Your task to perform on an android device: What's on my calendar tomorrow? Image 0: 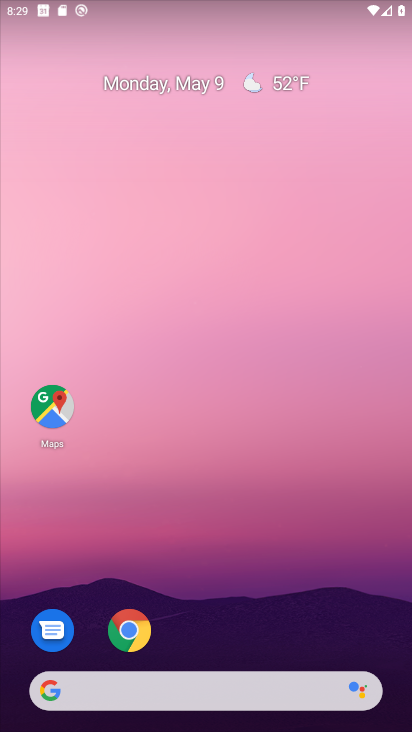
Step 0: click (139, 628)
Your task to perform on an android device: What's on my calendar tomorrow? Image 1: 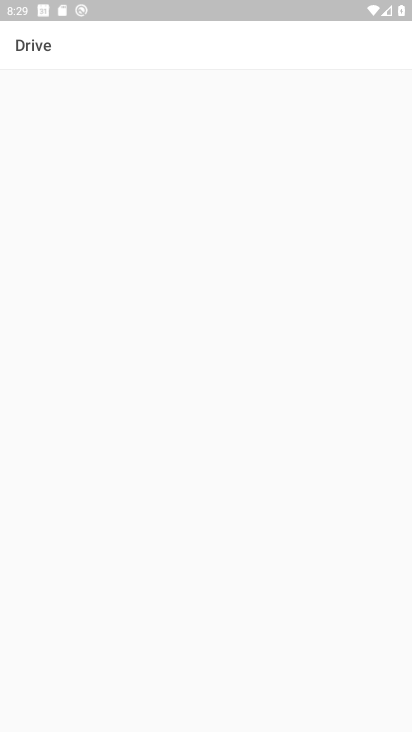
Step 1: press home button
Your task to perform on an android device: What's on my calendar tomorrow? Image 2: 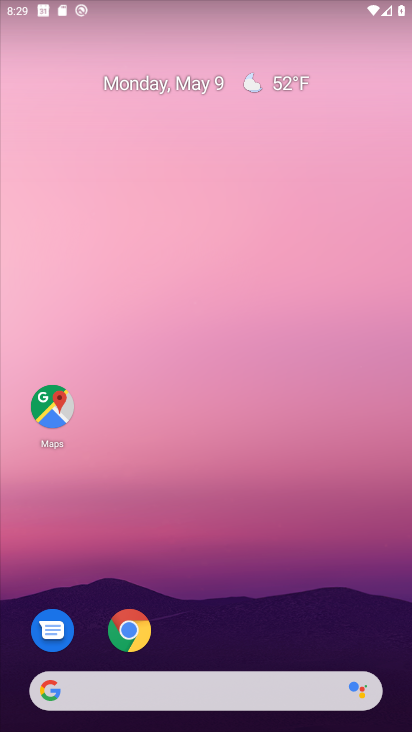
Step 2: drag from (235, 667) to (313, 15)
Your task to perform on an android device: What's on my calendar tomorrow? Image 3: 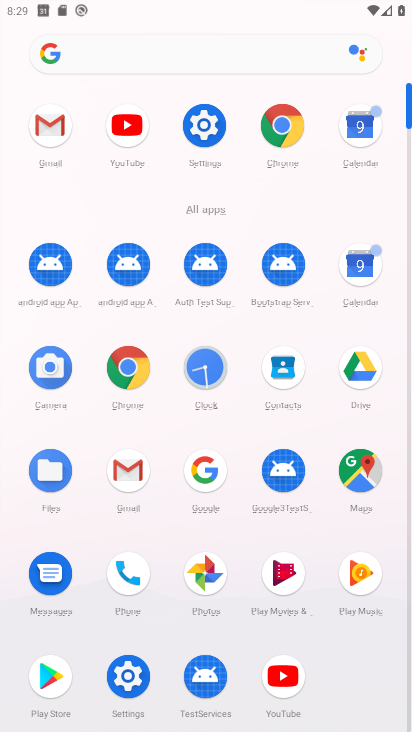
Step 3: click (377, 276)
Your task to perform on an android device: What's on my calendar tomorrow? Image 4: 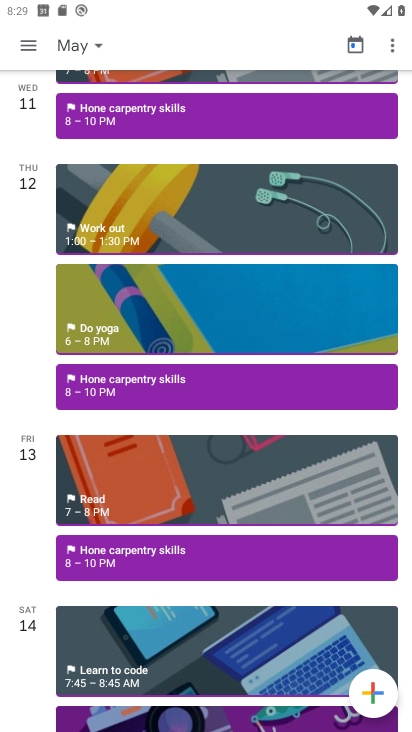
Step 4: click (31, 51)
Your task to perform on an android device: What's on my calendar tomorrow? Image 5: 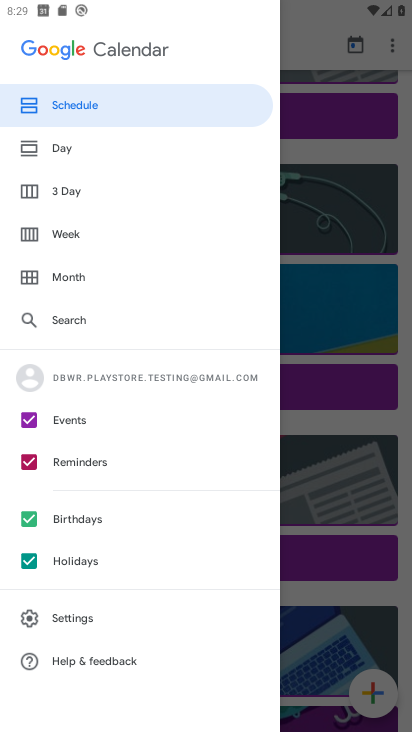
Step 5: click (85, 192)
Your task to perform on an android device: What's on my calendar tomorrow? Image 6: 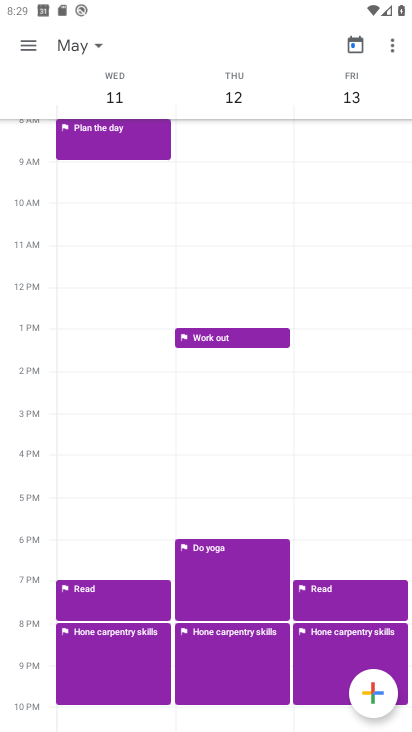
Step 6: task complete